Your task to perform on an android device: Open the calendar and show me this week's events? Image 0: 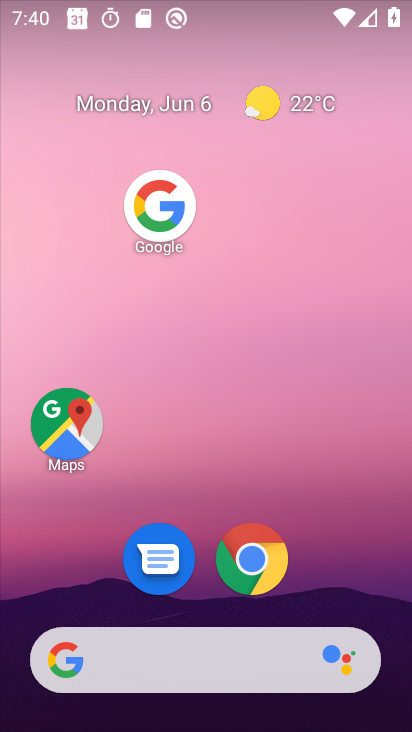
Step 0: drag from (214, 588) to (335, 176)
Your task to perform on an android device: Open the calendar and show me this week's events? Image 1: 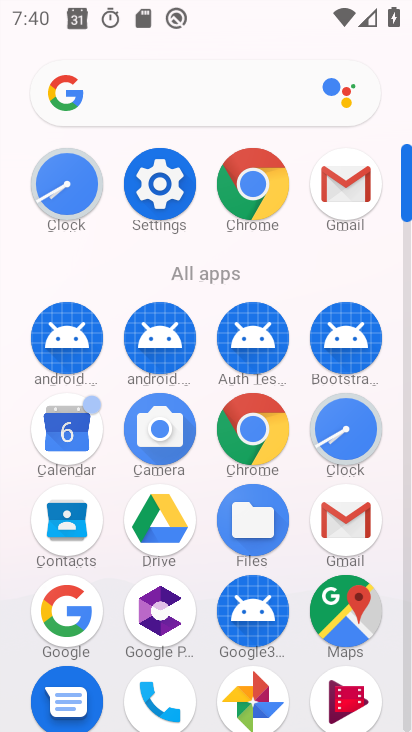
Step 1: click (63, 431)
Your task to perform on an android device: Open the calendar and show me this week's events? Image 2: 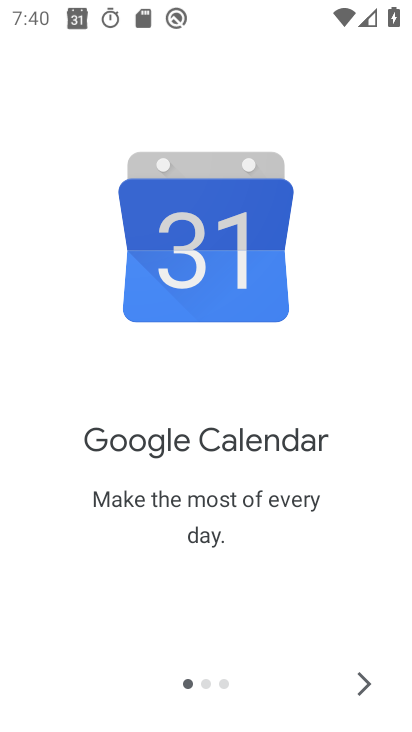
Step 2: click (365, 678)
Your task to perform on an android device: Open the calendar and show me this week's events? Image 3: 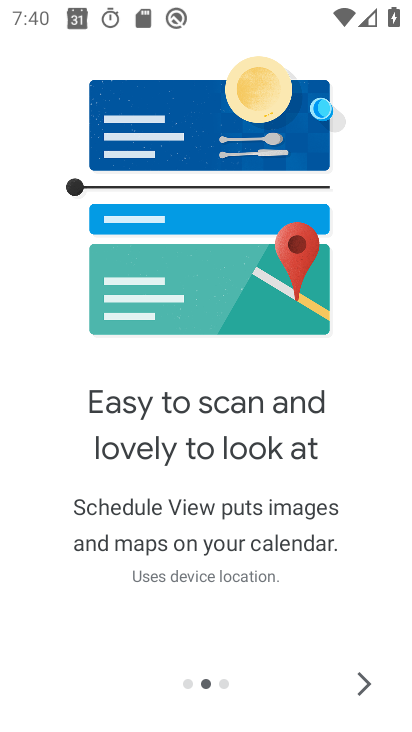
Step 3: click (365, 678)
Your task to perform on an android device: Open the calendar and show me this week's events? Image 4: 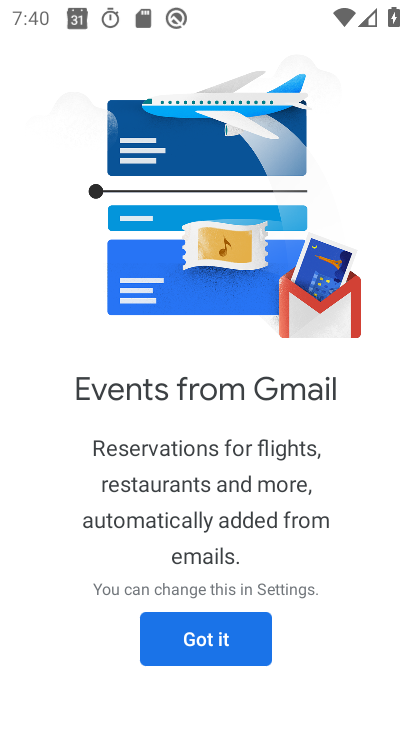
Step 4: click (227, 635)
Your task to perform on an android device: Open the calendar and show me this week's events? Image 5: 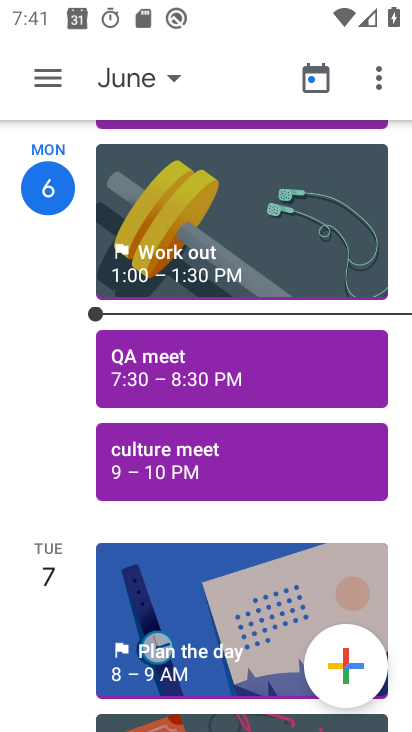
Step 5: click (166, 82)
Your task to perform on an android device: Open the calendar and show me this week's events? Image 6: 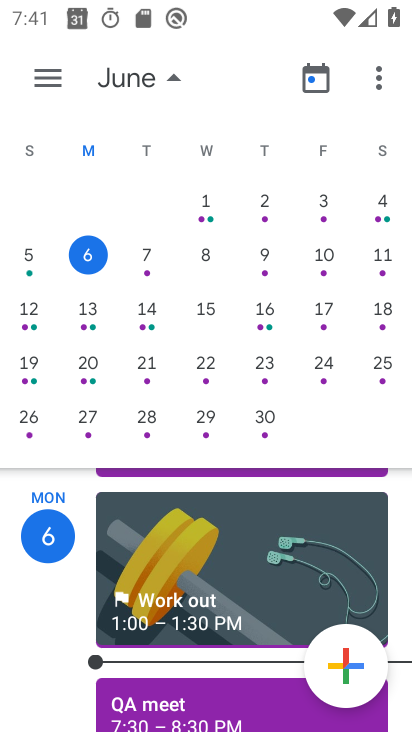
Step 6: click (142, 252)
Your task to perform on an android device: Open the calendar and show me this week's events? Image 7: 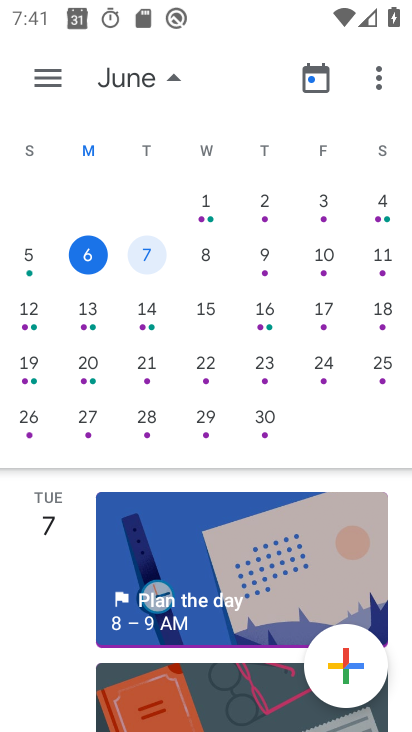
Step 7: click (201, 254)
Your task to perform on an android device: Open the calendar and show me this week's events? Image 8: 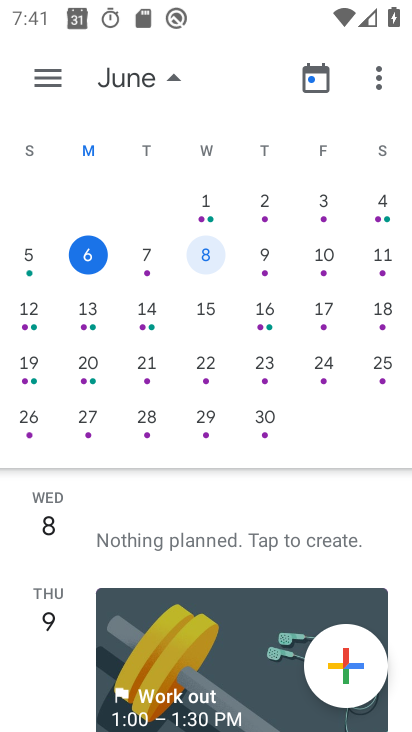
Step 8: click (264, 261)
Your task to perform on an android device: Open the calendar and show me this week's events? Image 9: 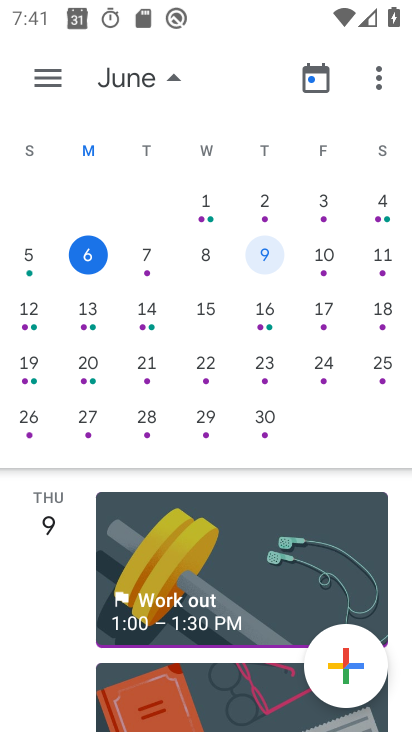
Step 9: click (320, 261)
Your task to perform on an android device: Open the calendar and show me this week's events? Image 10: 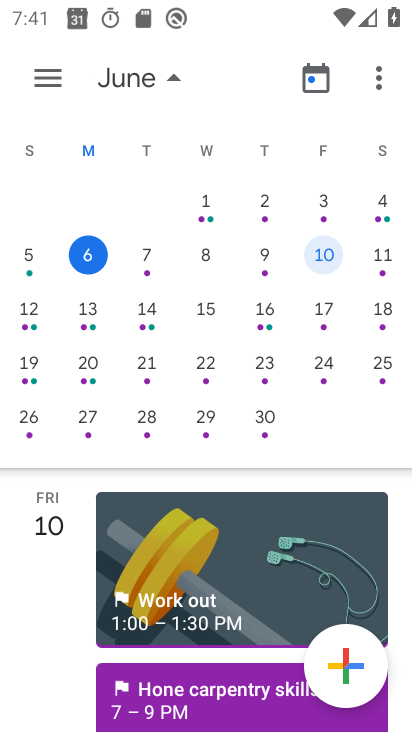
Step 10: click (379, 259)
Your task to perform on an android device: Open the calendar and show me this week's events? Image 11: 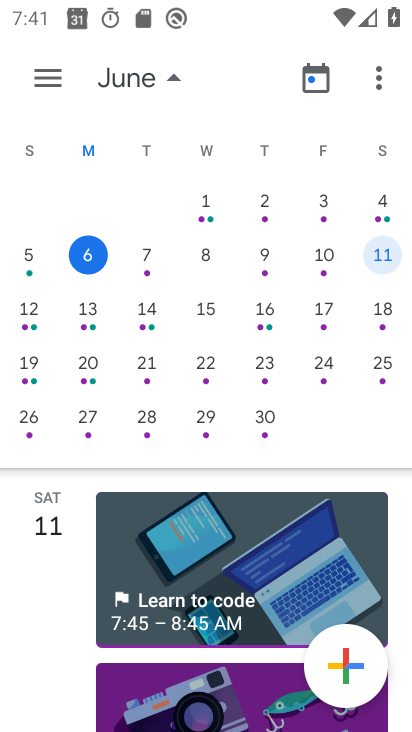
Step 11: task complete